Your task to perform on an android device: Open network settings Image 0: 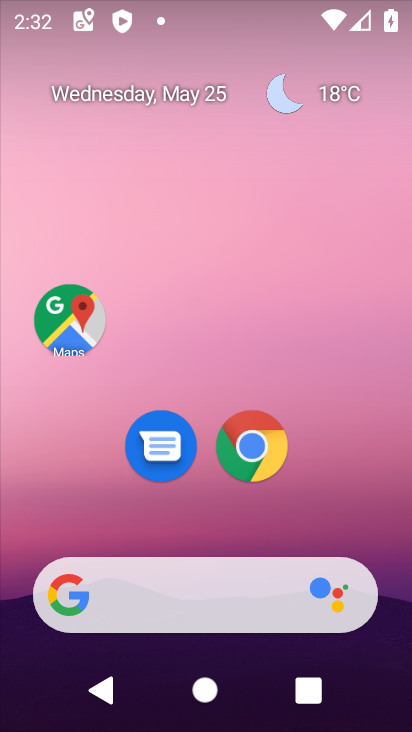
Step 0: drag from (272, 583) to (201, 38)
Your task to perform on an android device: Open network settings Image 1: 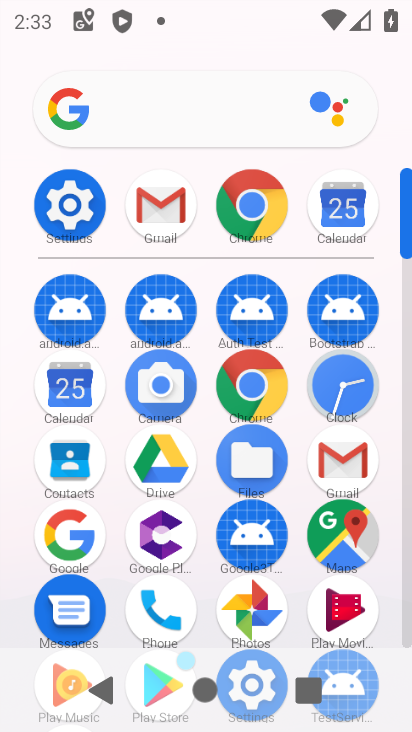
Step 1: click (77, 206)
Your task to perform on an android device: Open network settings Image 2: 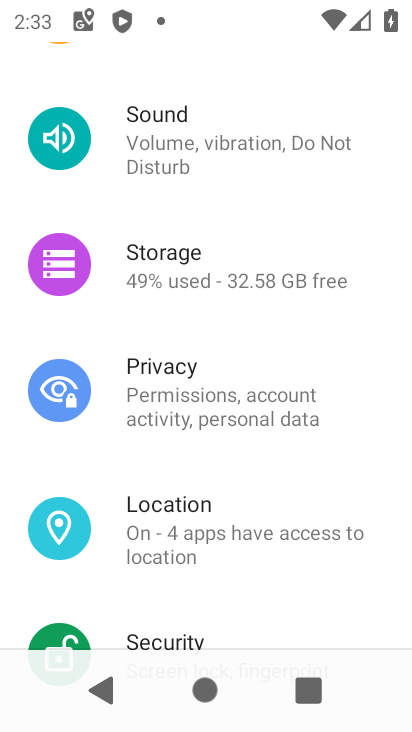
Step 2: drag from (209, 91) to (176, 690)
Your task to perform on an android device: Open network settings Image 3: 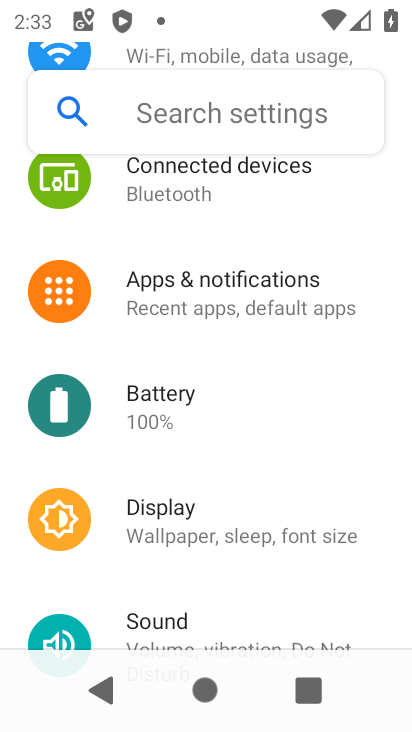
Step 3: drag from (248, 205) to (242, 666)
Your task to perform on an android device: Open network settings Image 4: 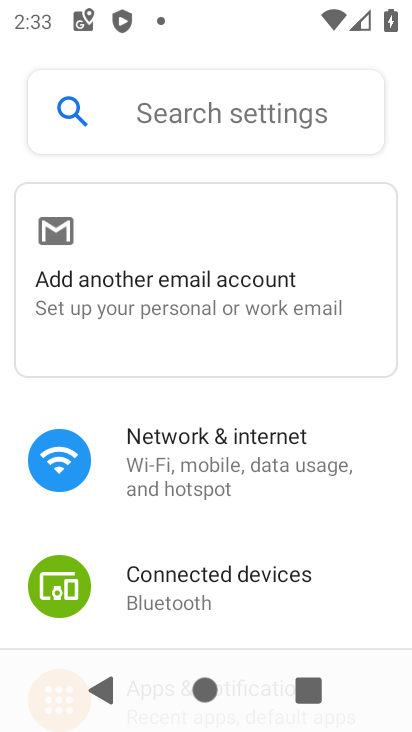
Step 4: click (215, 445)
Your task to perform on an android device: Open network settings Image 5: 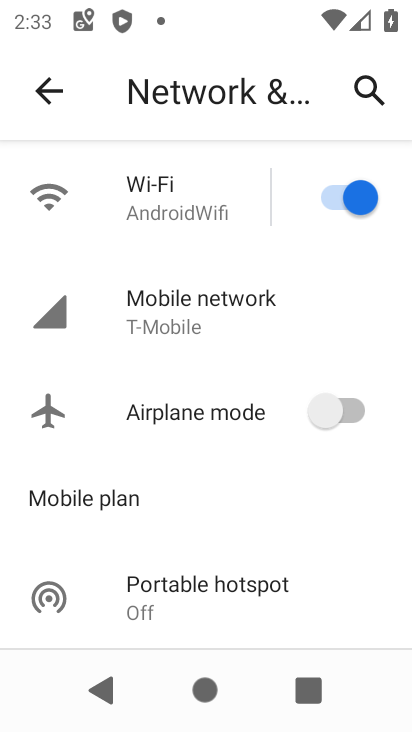
Step 5: task complete